Your task to perform on an android device: Open Google Image 0: 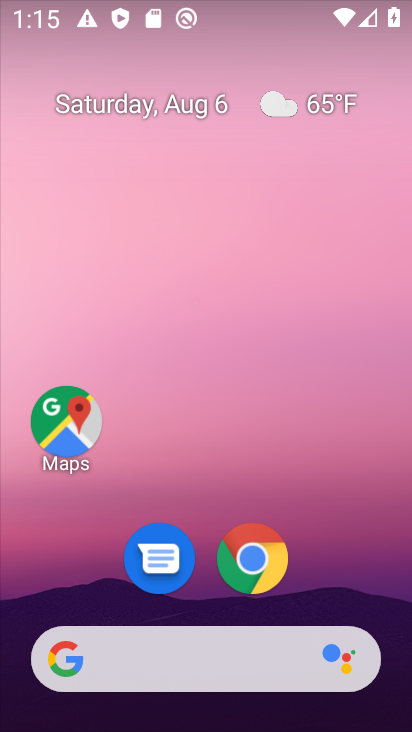
Step 0: drag from (187, 634) to (138, 36)
Your task to perform on an android device: Open Google Image 1: 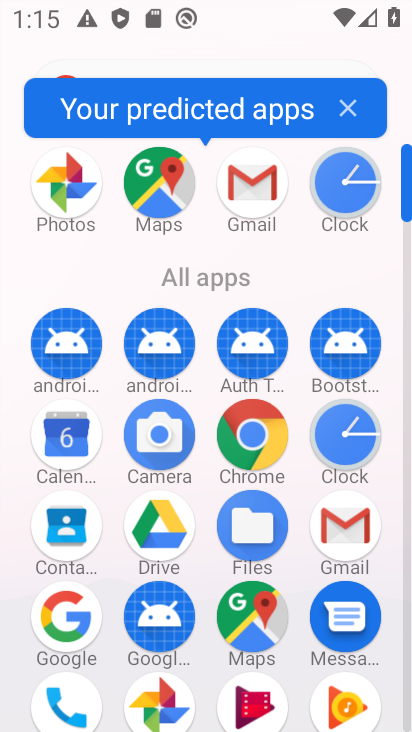
Step 1: click (68, 626)
Your task to perform on an android device: Open Google Image 2: 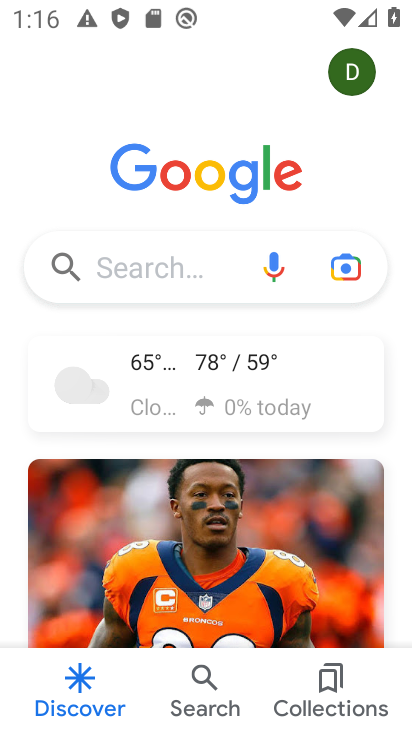
Step 2: task complete